Your task to perform on an android device: Open Android settings Image 0: 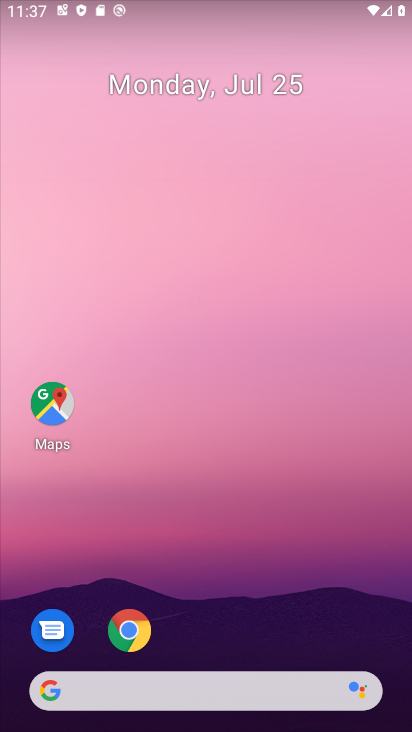
Step 0: press home button
Your task to perform on an android device: Open Android settings Image 1: 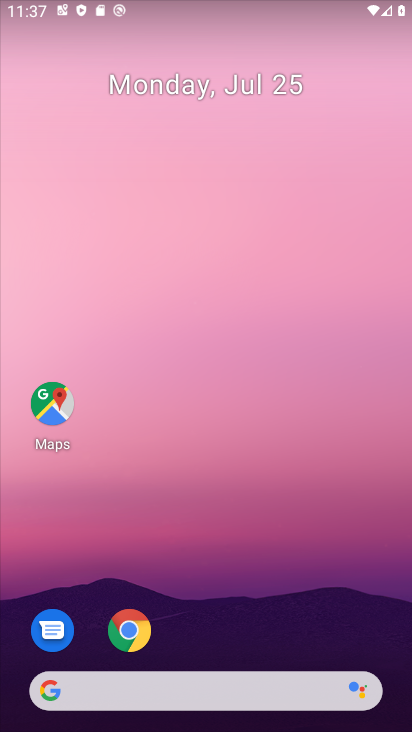
Step 1: drag from (346, 613) to (361, 91)
Your task to perform on an android device: Open Android settings Image 2: 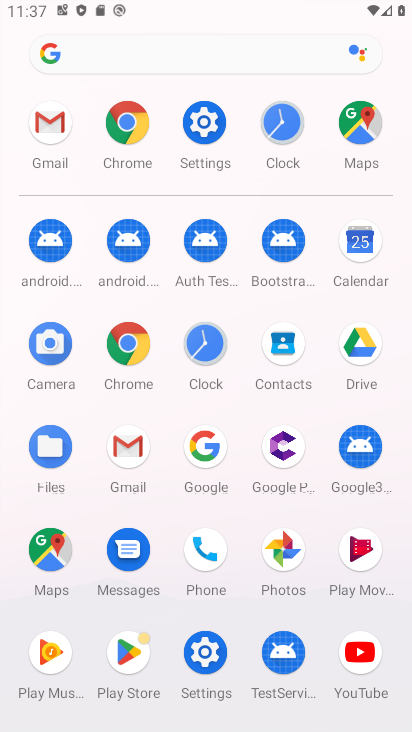
Step 2: click (209, 126)
Your task to perform on an android device: Open Android settings Image 3: 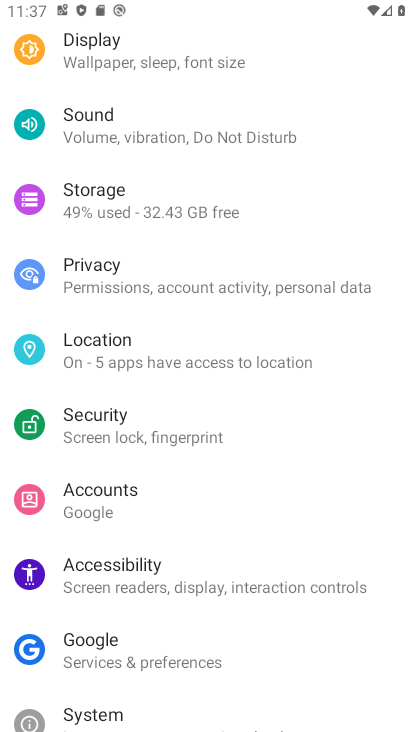
Step 3: drag from (372, 165) to (377, 286)
Your task to perform on an android device: Open Android settings Image 4: 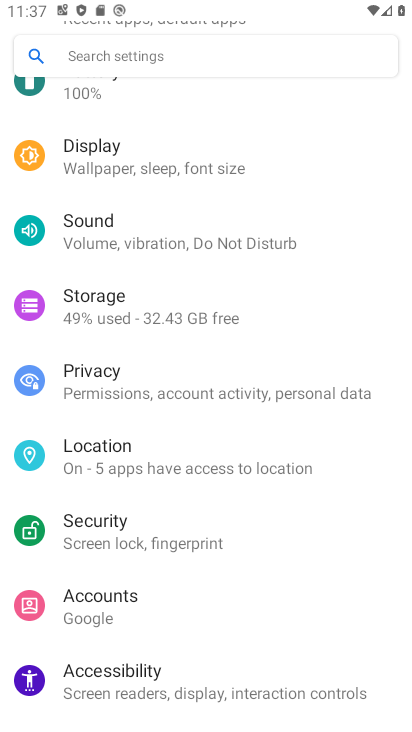
Step 4: drag from (356, 170) to (360, 301)
Your task to perform on an android device: Open Android settings Image 5: 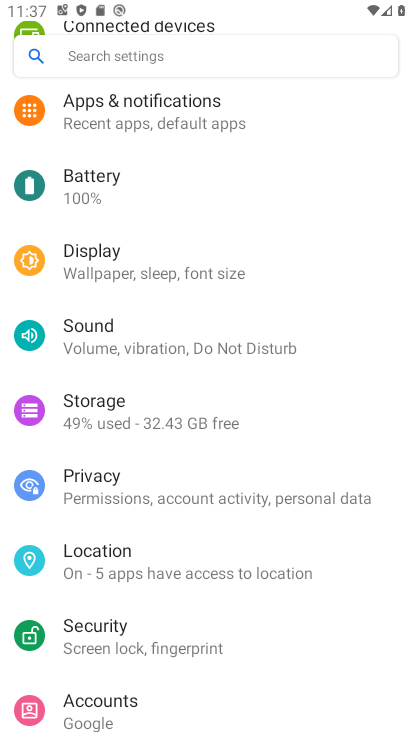
Step 5: drag from (341, 171) to (348, 341)
Your task to perform on an android device: Open Android settings Image 6: 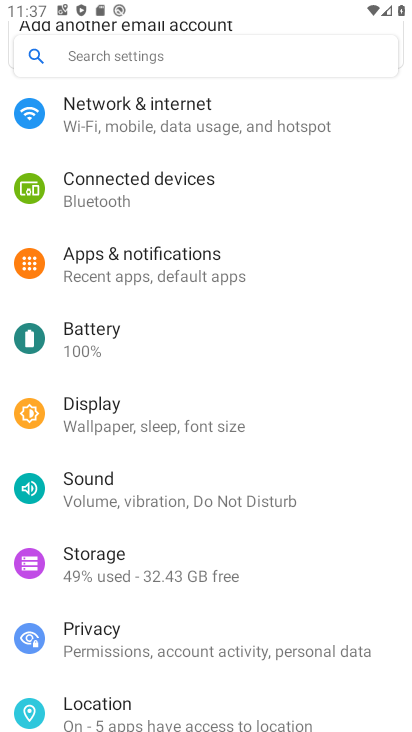
Step 6: drag from (331, 181) to (352, 398)
Your task to perform on an android device: Open Android settings Image 7: 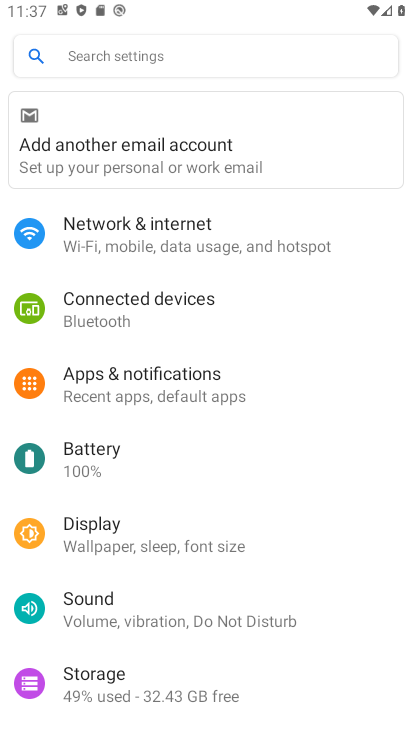
Step 7: drag from (355, 420) to (359, 334)
Your task to perform on an android device: Open Android settings Image 8: 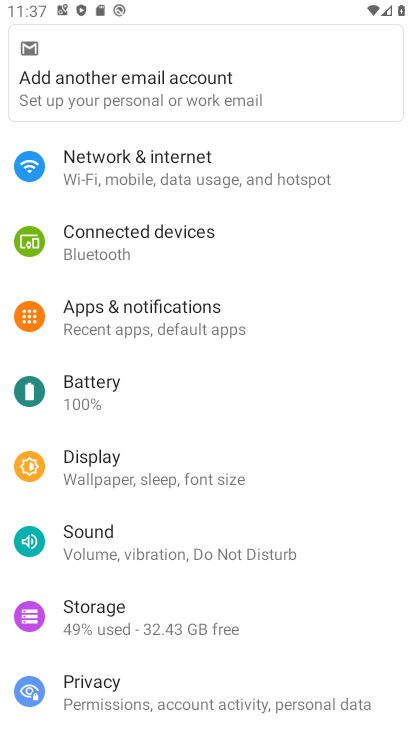
Step 8: drag from (341, 431) to (345, 338)
Your task to perform on an android device: Open Android settings Image 9: 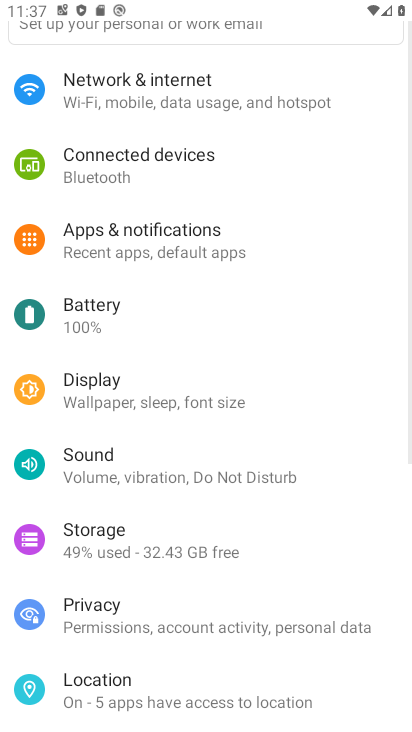
Step 9: drag from (351, 451) to (351, 355)
Your task to perform on an android device: Open Android settings Image 10: 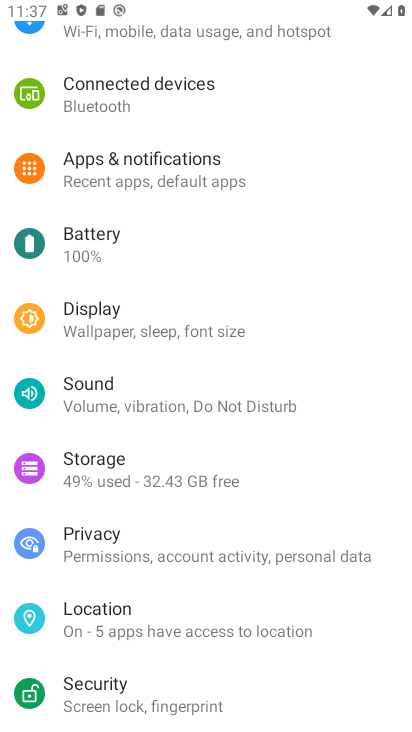
Step 10: drag from (338, 467) to (343, 337)
Your task to perform on an android device: Open Android settings Image 11: 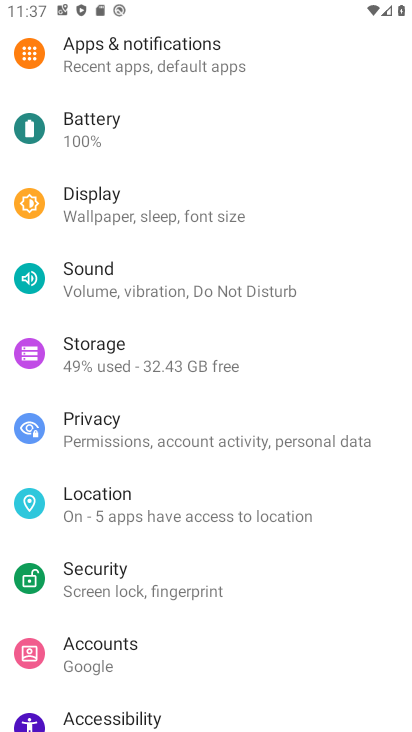
Step 11: drag from (333, 507) to (340, 348)
Your task to perform on an android device: Open Android settings Image 12: 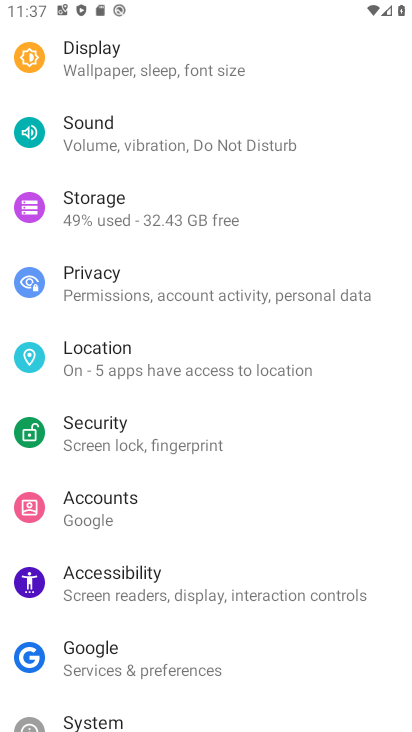
Step 12: drag from (328, 539) to (327, 307)
Your task to perform on an android device: Open Android settings Image 13: 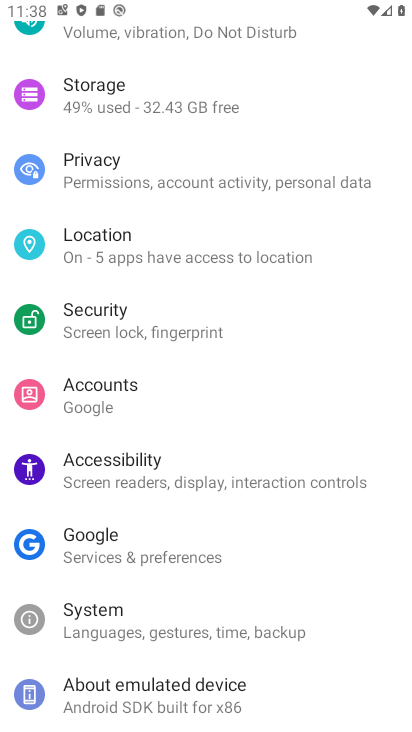
Step 13: click (316, 630)
Your task to perform on an android device: Open Android settings Image 14: 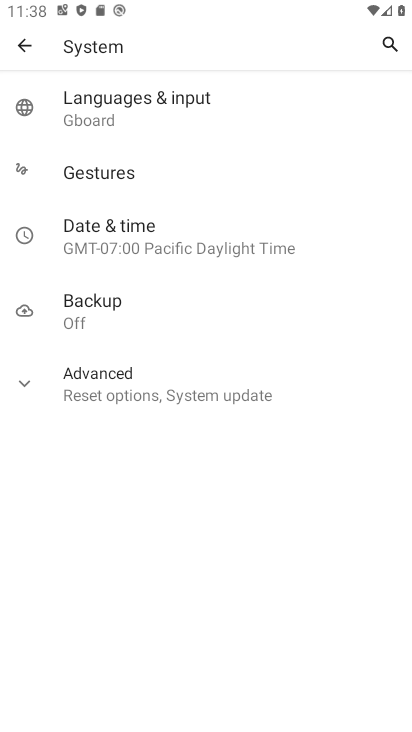
Step 14: click (222, 379)
Your task to perform on an android device: Open Android settings Image 15: 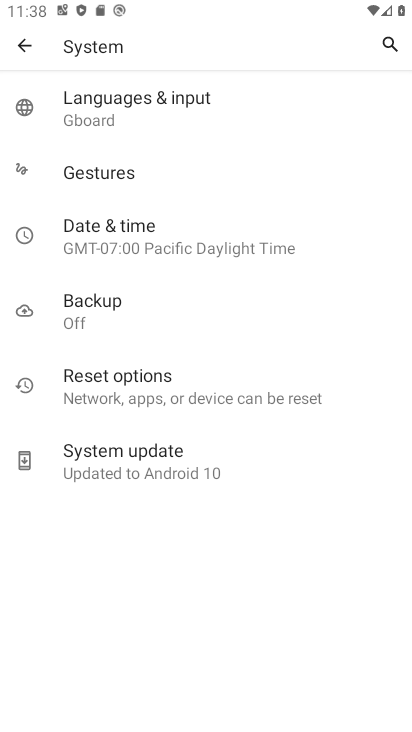
Step 15: task complete